Your task to perform on an android device: toggle improve location accuracy Image 0: 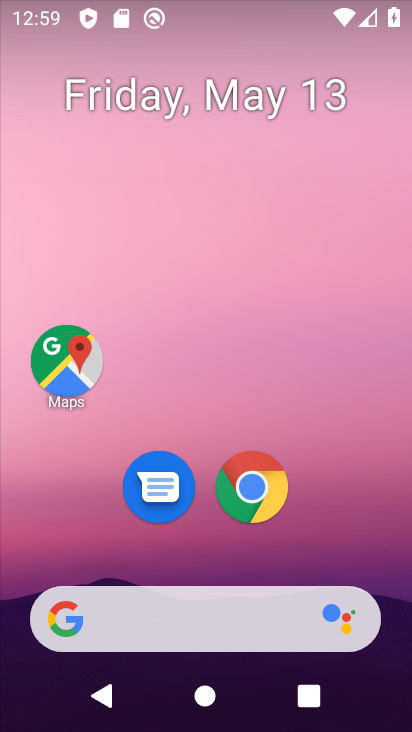
Step 0: drag from (341, 515) to (320, 146)
Your task to perform on an android device: toggle improve location accuracy Image 1: 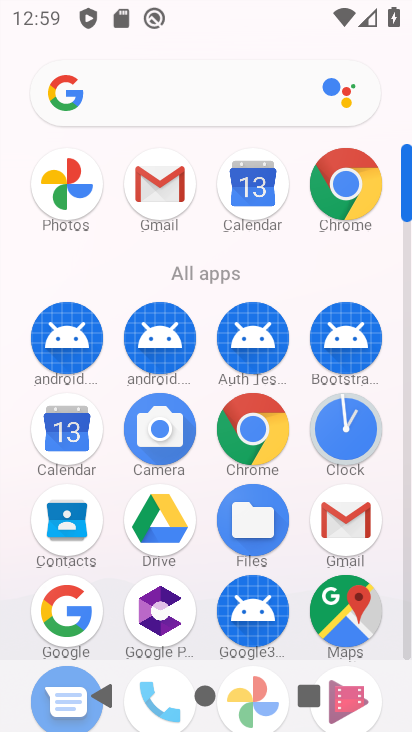
Step 1: drag from (273, 542) to (250, 266)
Your task to perform on an android device: toggle improve location accuracy Image 2: 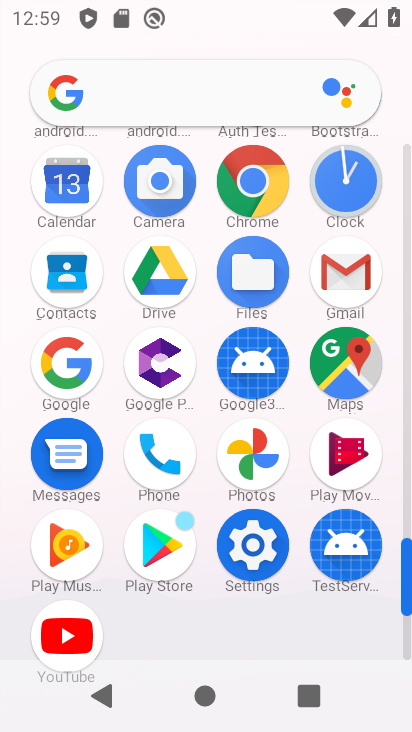
Step 2: click (251, 550)
Your task to perform on an android device: toggle improve location accuracy Image 3: 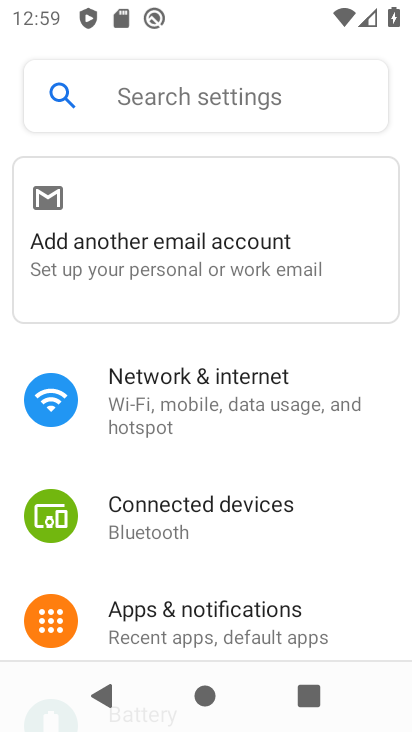
Step 3: drag from (333, 592) to (340, 355)
Your task to perform on an android device: toggle improve location accuracy Image 4: 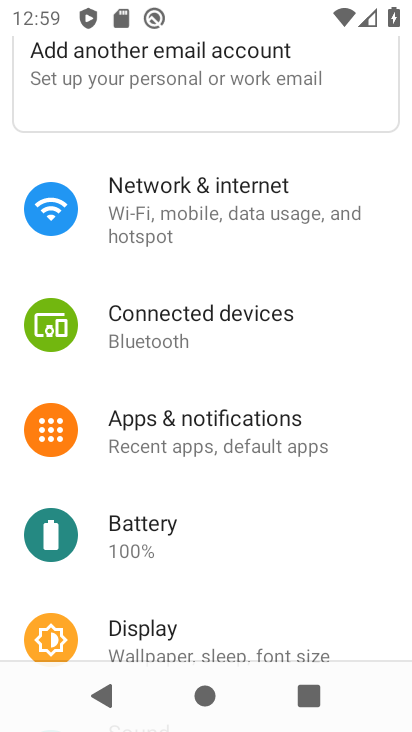
Step 4: drag from (320, 584) to (301, 337)
Your task to perform on an android device: toggle improve location accuracy Image 5: 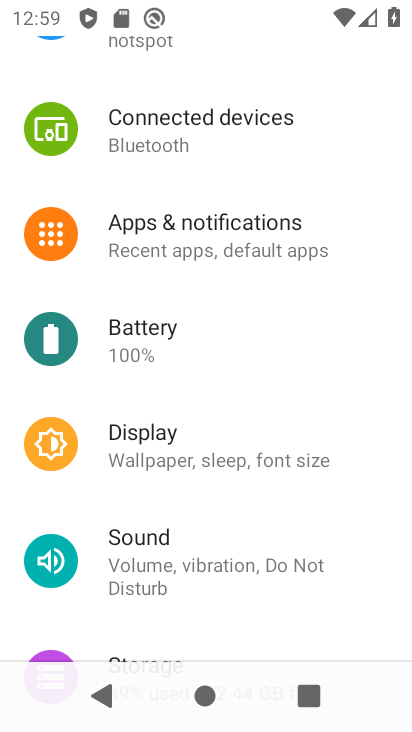
Step 5: drag from (277, 612) to (291, 348)
Your task to perform on an android device: toggle improve location accuracy Image 6: 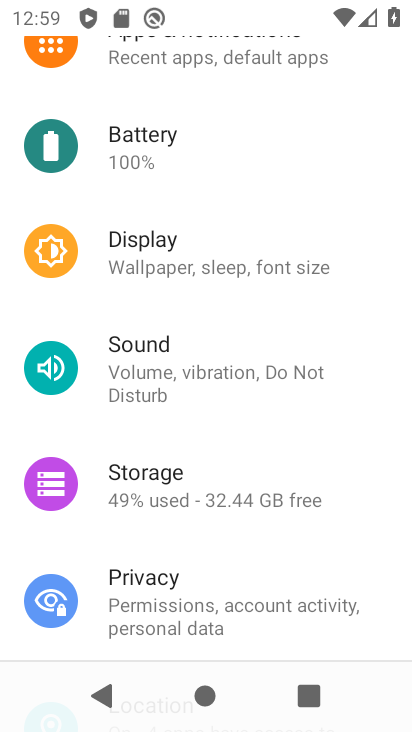
Step 6: drag from (292, 542) to (251, 257)
Your task to perform on an android device: toggle improve location accuracy Image 7: 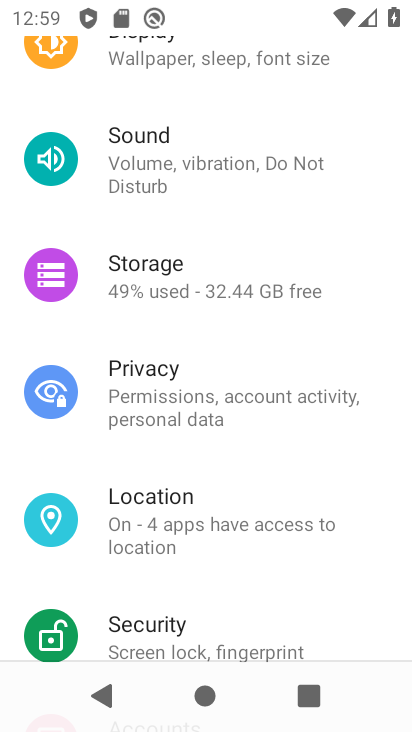
Step 7: click (194, 496)
Your task to perform on an android device: toggle improve location accuracy Image 8: 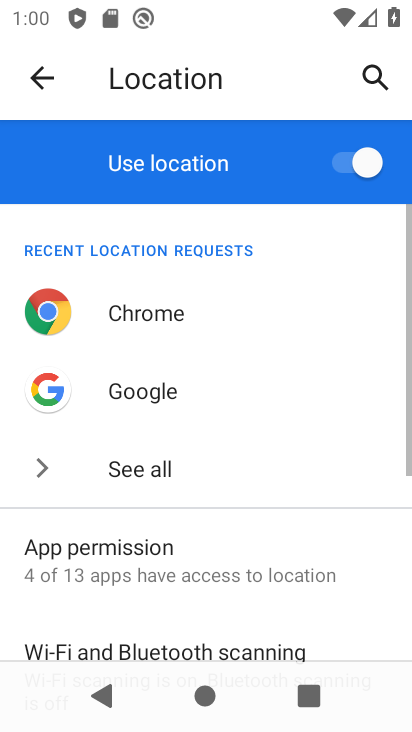
Step 8: drag from (246, 605) to (300, 357)
Your task to perform on an android device: toggle improve location accuracy Image 9: 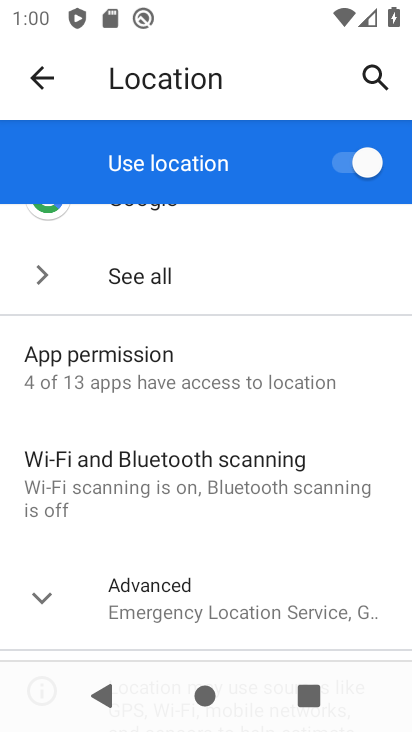
Step 9: click (278, 611)
Your task to perform on an android device: toggle improve location accuracy Image 10: 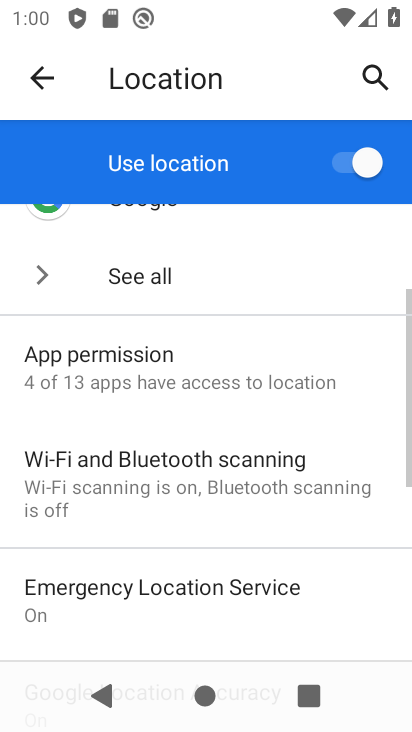
Step 10: drag from (298, 611) to (284, 332)
Your task to perform on an android device: toggle improve location accuracy Image 11: 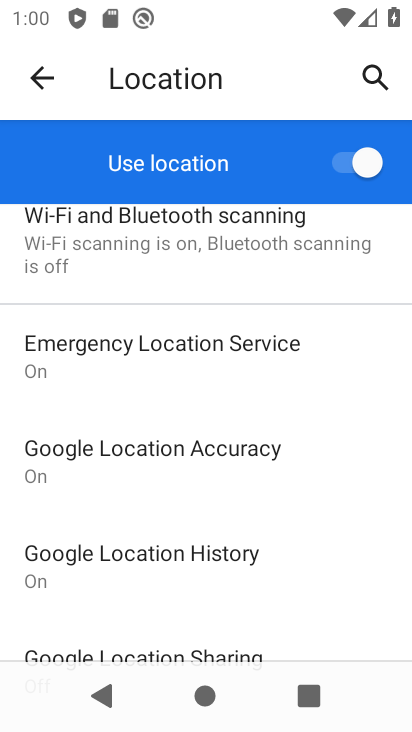
Step 11: click (159, 449)
Your task to perform on an android device: toggle improve location accuracy Image 12: 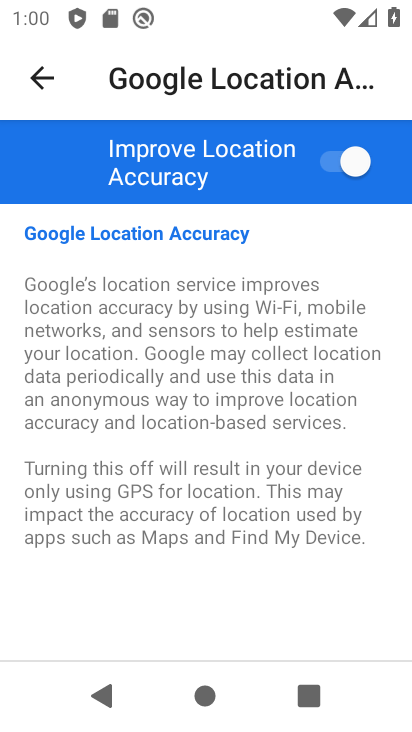
Step 12: click (340, 159)
Your task to perform on an android device: toggle improve location accuracy Image 13: 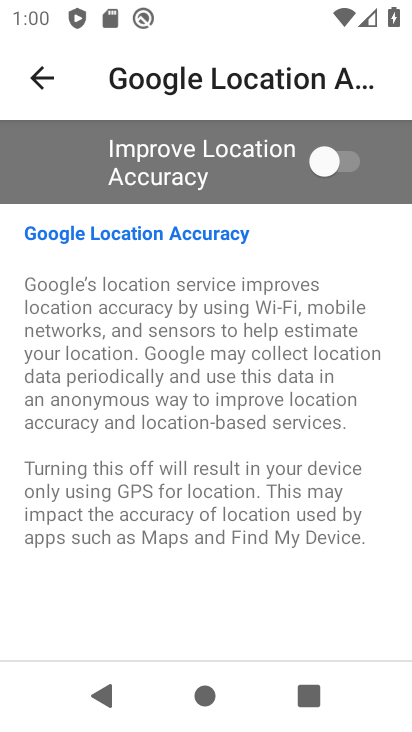
Step 13: task complete